Your task to perform on an android device: turn on the 12-hour format for clock Image 0: 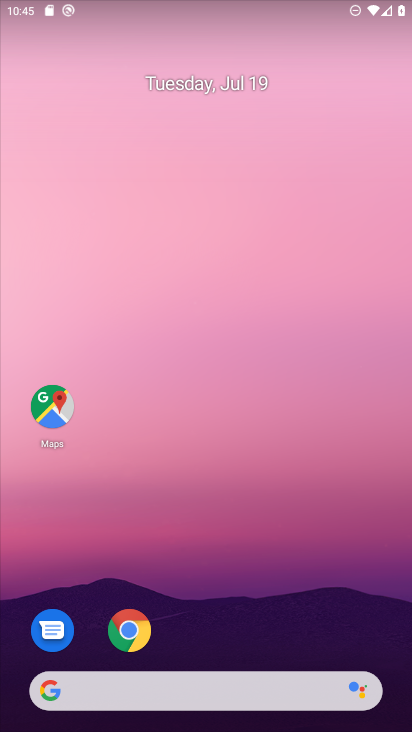
Step 0: drag from (185, 615) to (132, 183)
Your task to perform on an android device: turn on the 12-hour format for clock Image 1: 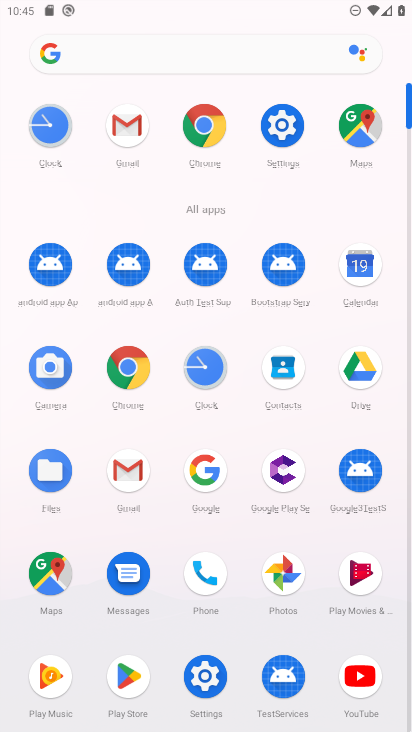
Step 1: click (218, 365)
Your task to perform on an android device: turn on the 12-hour format for clock Image 2: 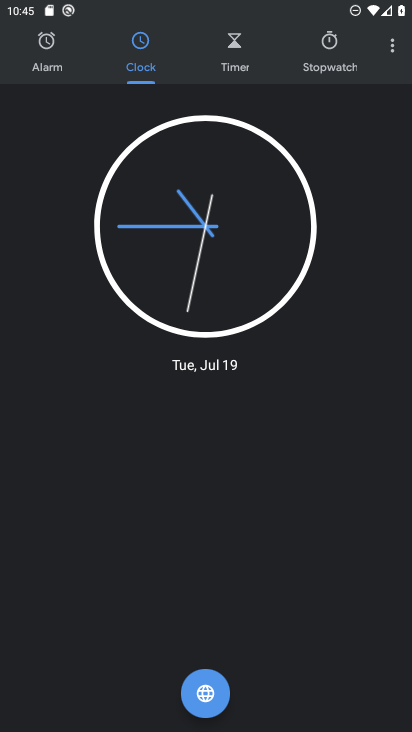
Step 2: click (392, 57)
Your task to perform on an android device: turn on the 12-hour format for clock Image 3: 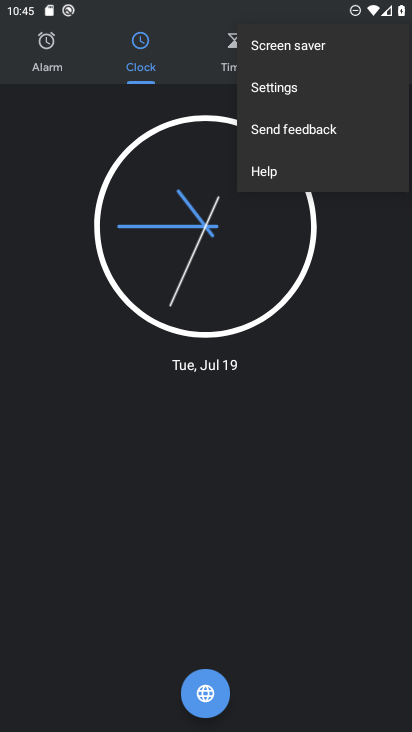
Step 3: click (302, 95)
Your task to perform on an android device: turn on the 12-hour format for clock Image 4: 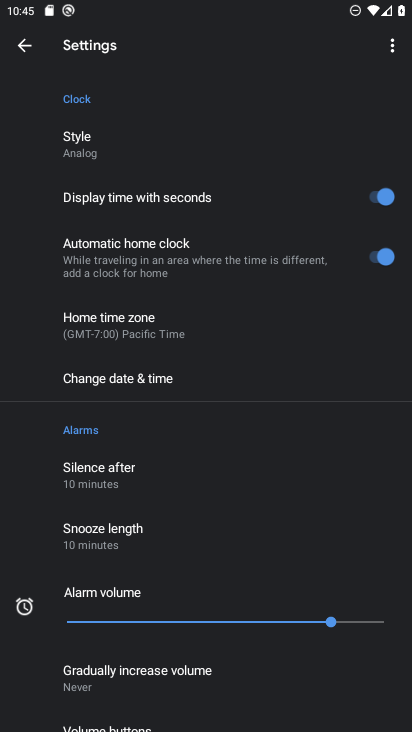
Step 4: click (147, 384)
Your task to perform on an android device: turn on the 12-hour format for clock Image 5: 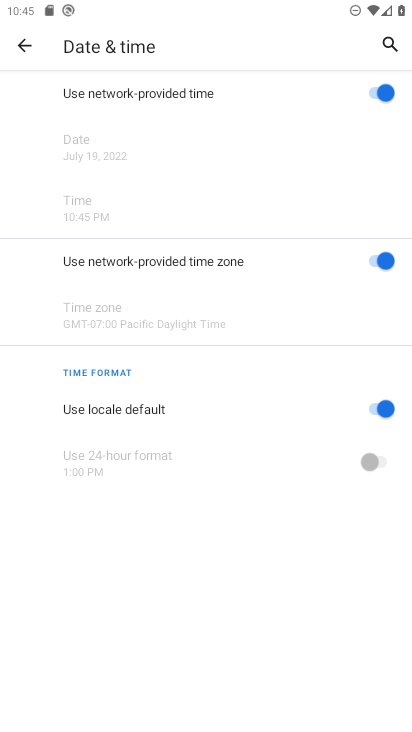
Step 5: task complete